Your task to perform on an android device: turn on bluetooth scan Image 0: 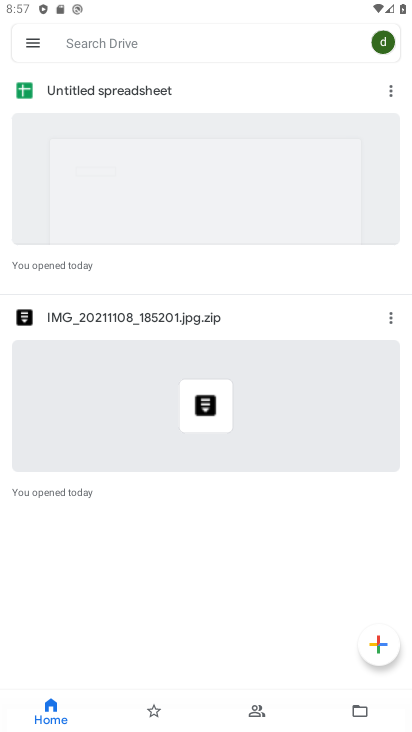
Step 0: press home button
Your task to perform on an android device: turn on bluetooth scan Image 1: 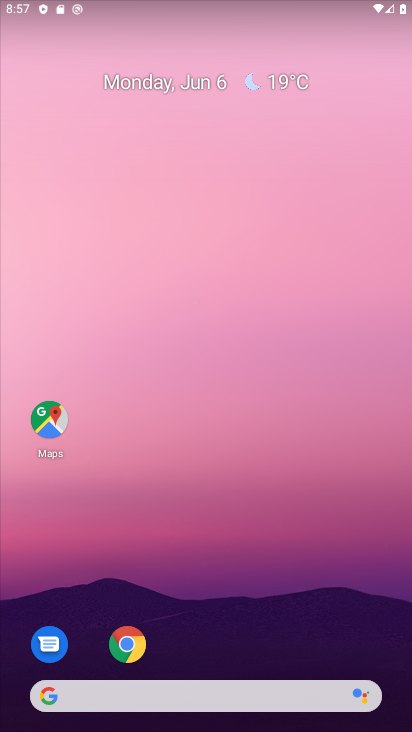
Step 1: drag from (198, 659) to (289, 173)
Your task to perform on an android device: turn on bluetooth scan Image 2: 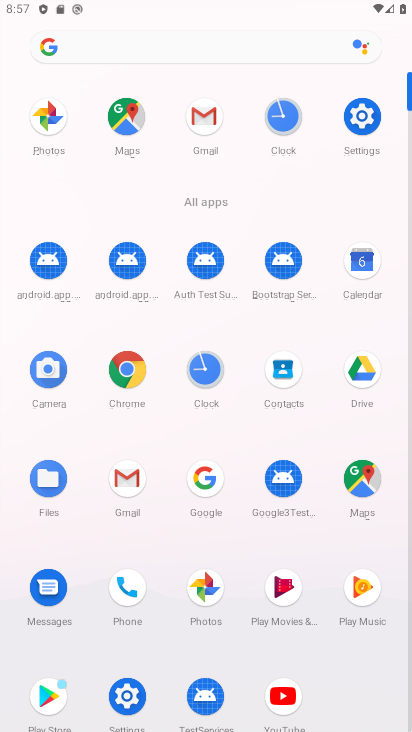
Step 2: click (126, 701)
Your task to perform on an android device: turn on bluetooth scan Image 3: 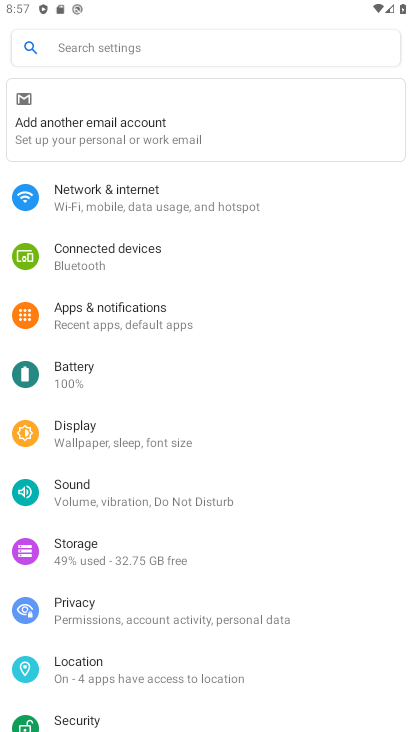
Step 3: click (170, 260)
Your task to perform on an android device: turn on bluetooth scan Image 4: 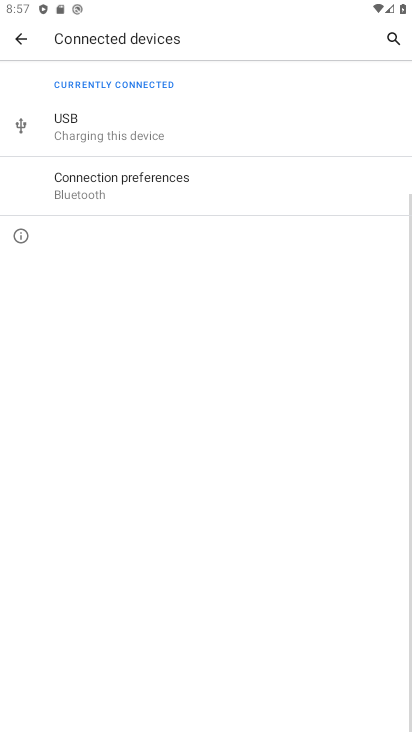
Step 4: click (175, 204)
Your task to perform on an android device: turn on bluetooth scan Image 5: 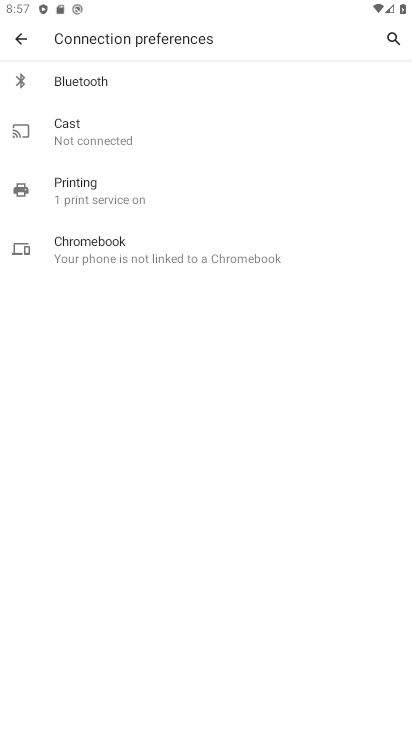
Step 5: click (218, 89)
Your task to perform on an android device: turn on bluetooth scan Image 6: 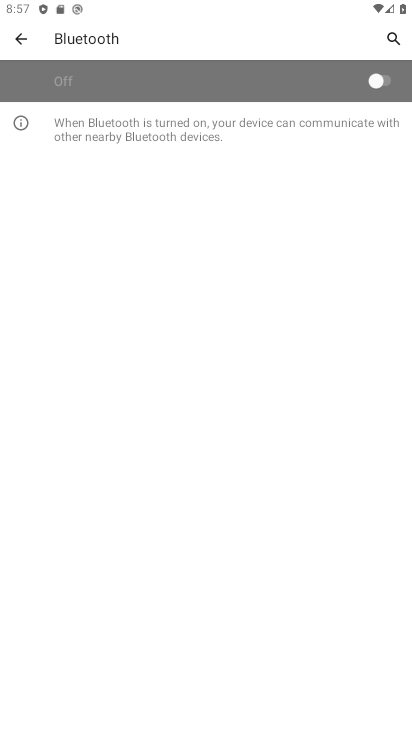
Step 6: click (387, 75)
Your task to perform on an android device: turn on bluetooth scan Image 7: 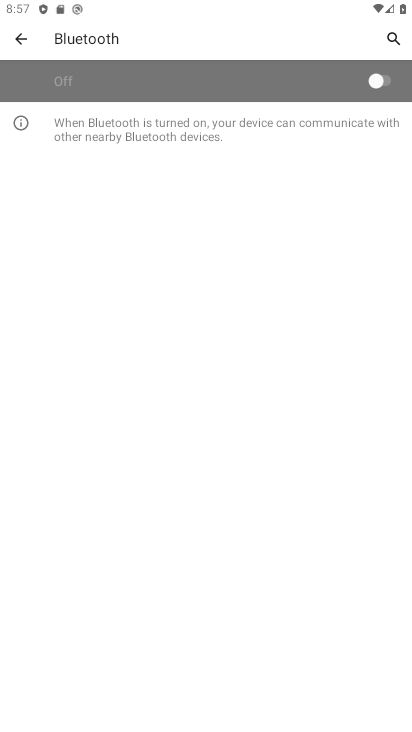
Step 7: click (384, 75)
Your task to perform on an android device: turn on bluetooth scan Image 8: 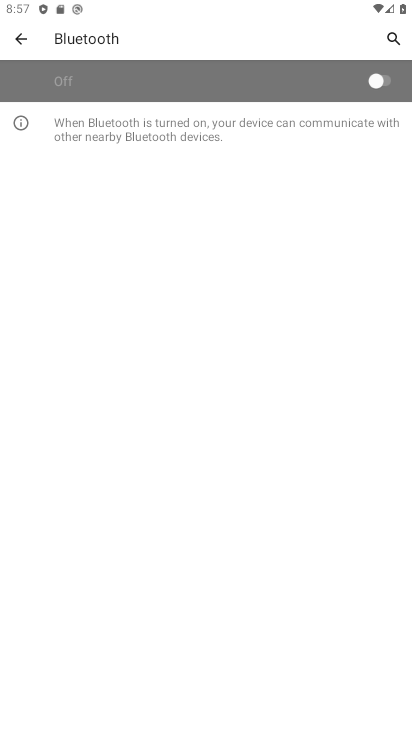
Step 8: task complete